Your task to perform on an android device: Open Chrome and go to settings Image 0: 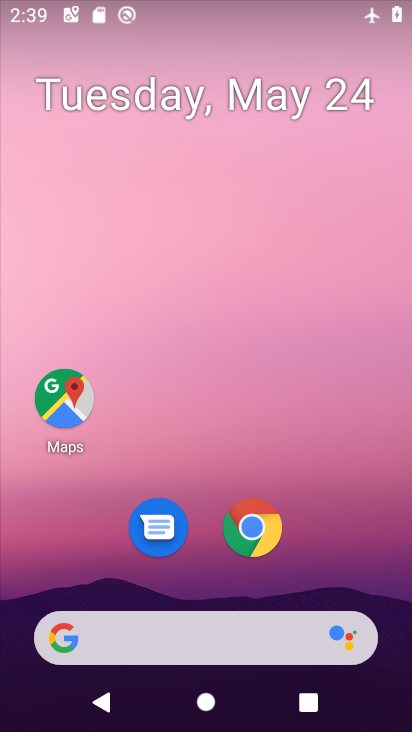
Step 0: click (258, 546)
Your task to perform on an android device: Open Chrome and go to settings Image 1: 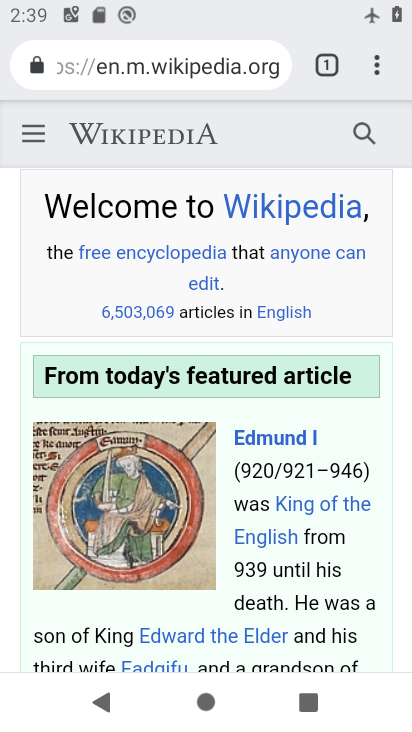
Step 1: click (376, 68)
Your task to perform on an android device: Open Chrome and go to settings Image 2: 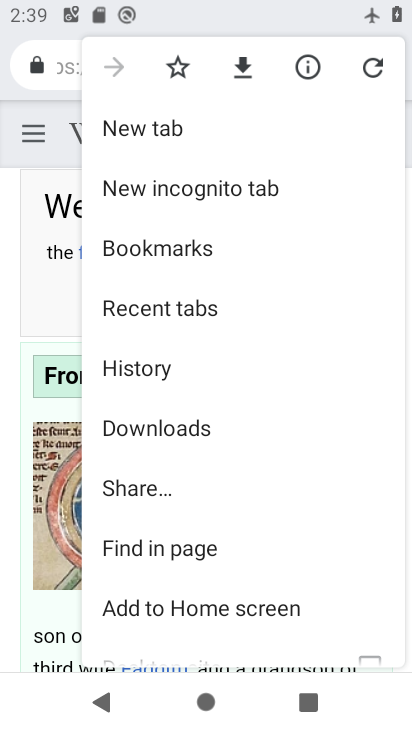
Step 2: drag from (277, 542) to (280, 267)
Your task to perform on an android device: Open Chrome and go to settings Image 3: 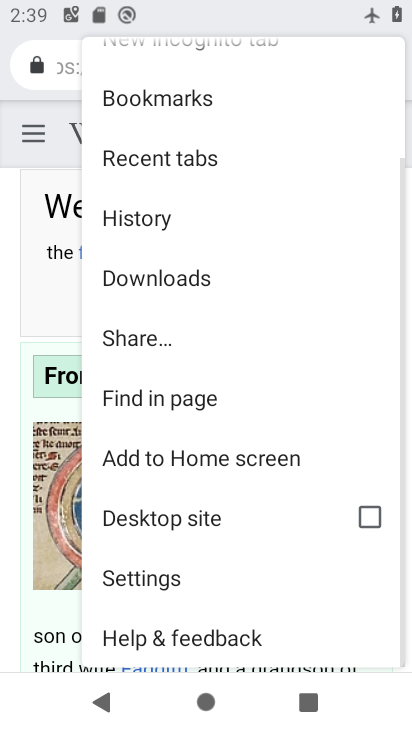
Step 3: click (155, 576)
Your task to perform on an android device: Open Chrome and go to settings Image 4: 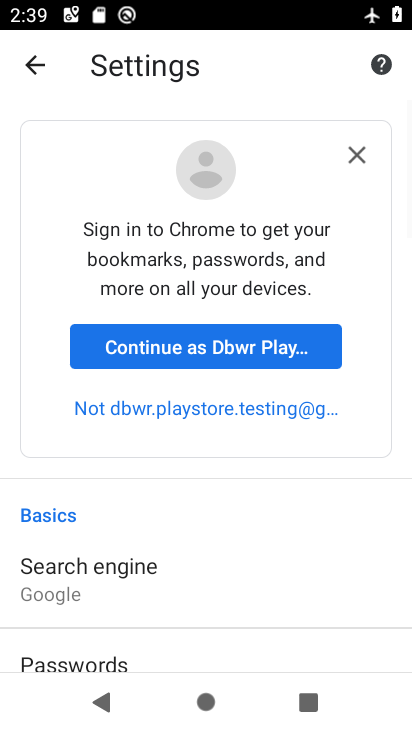
Step 4: task complete